Your task to perform on an android device: Show me popular games on the Play Store Image 0: 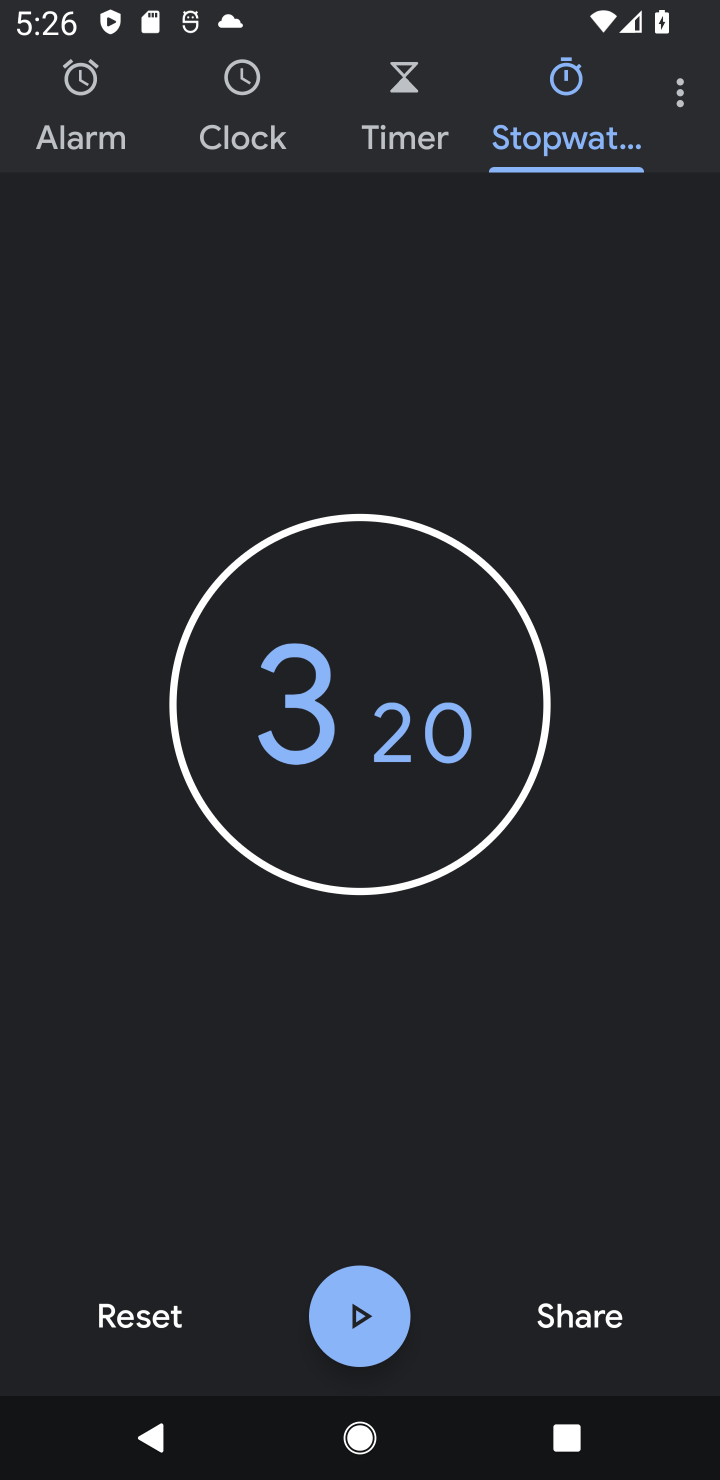
Step 0: press back button
Your task to perform on an android device: Show me popular games on the Play Store Image 1: 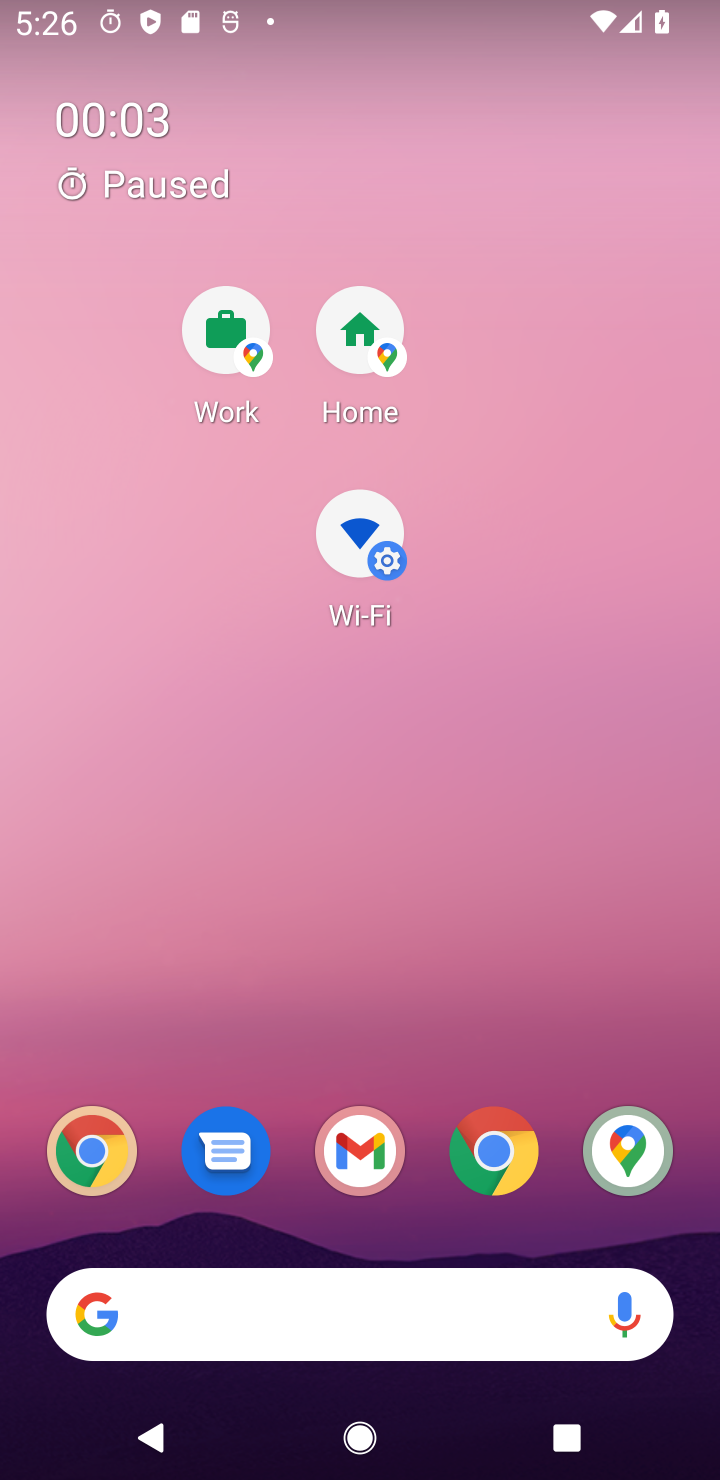
Step 1: drag from (406, 1150) to (361, 515)
Your task to perform on an android device: Show me popular games on the Play Store Image 2: 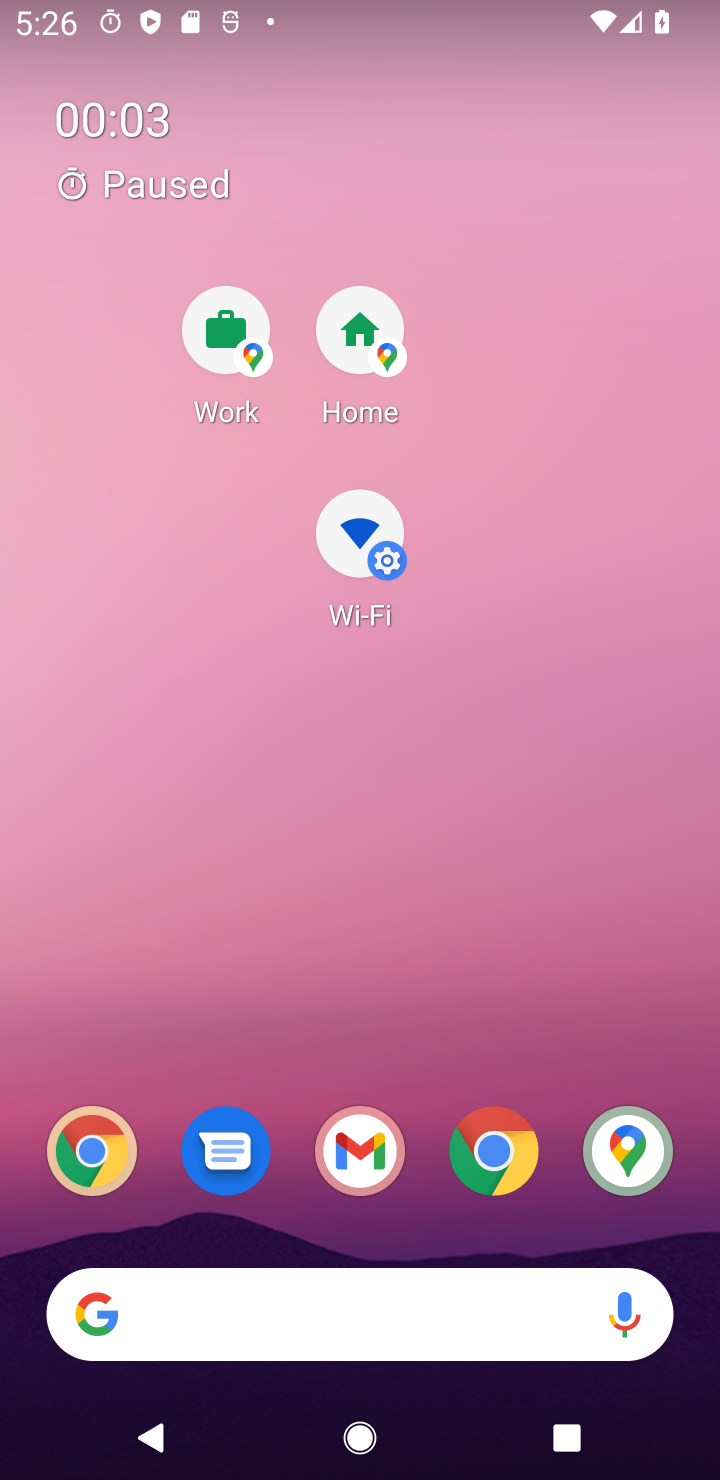
Step 2: click (319, 276)
Your task to perform on an android device: Show me popular games on the Play Store Image 3: 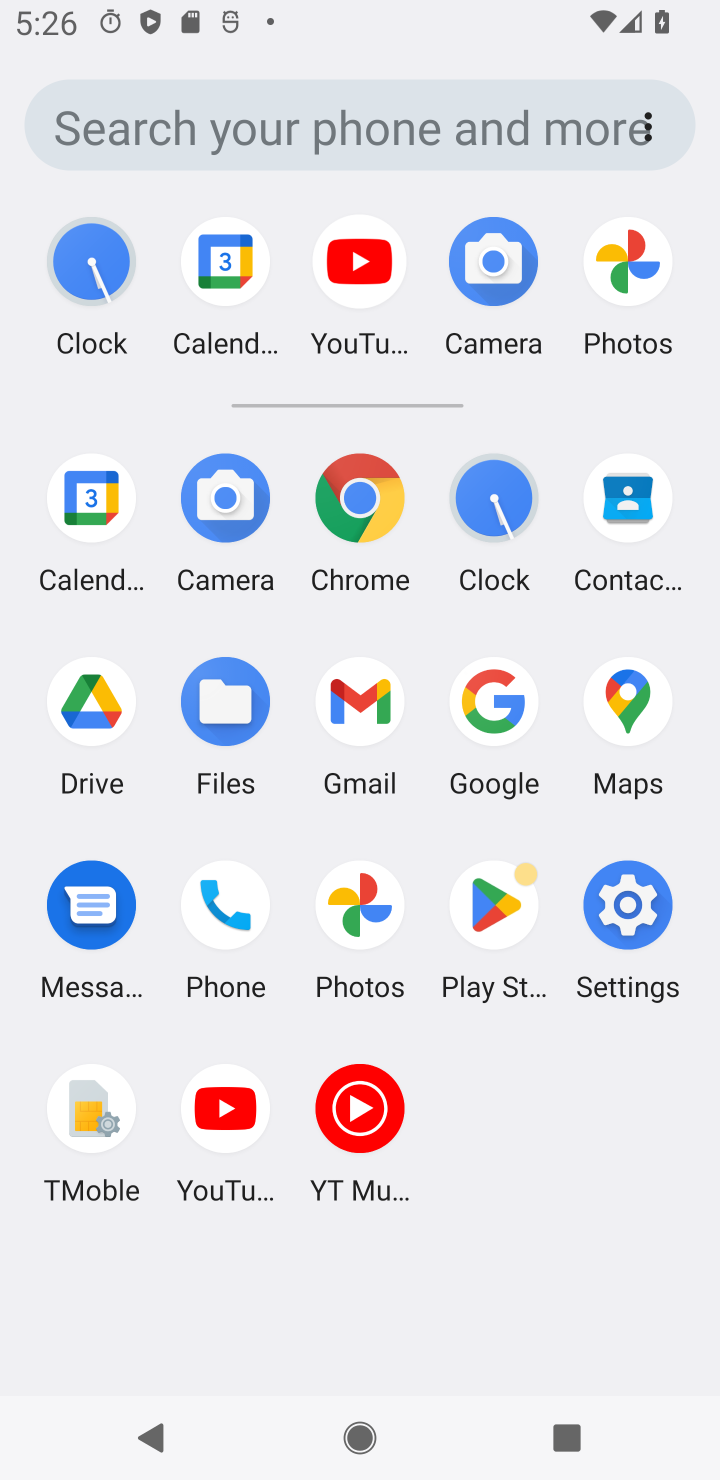
Step 3: drag from (394, 982) to (394, 442)
Your task to perform on an android device: Show me popular games on the Play Store Image 4: 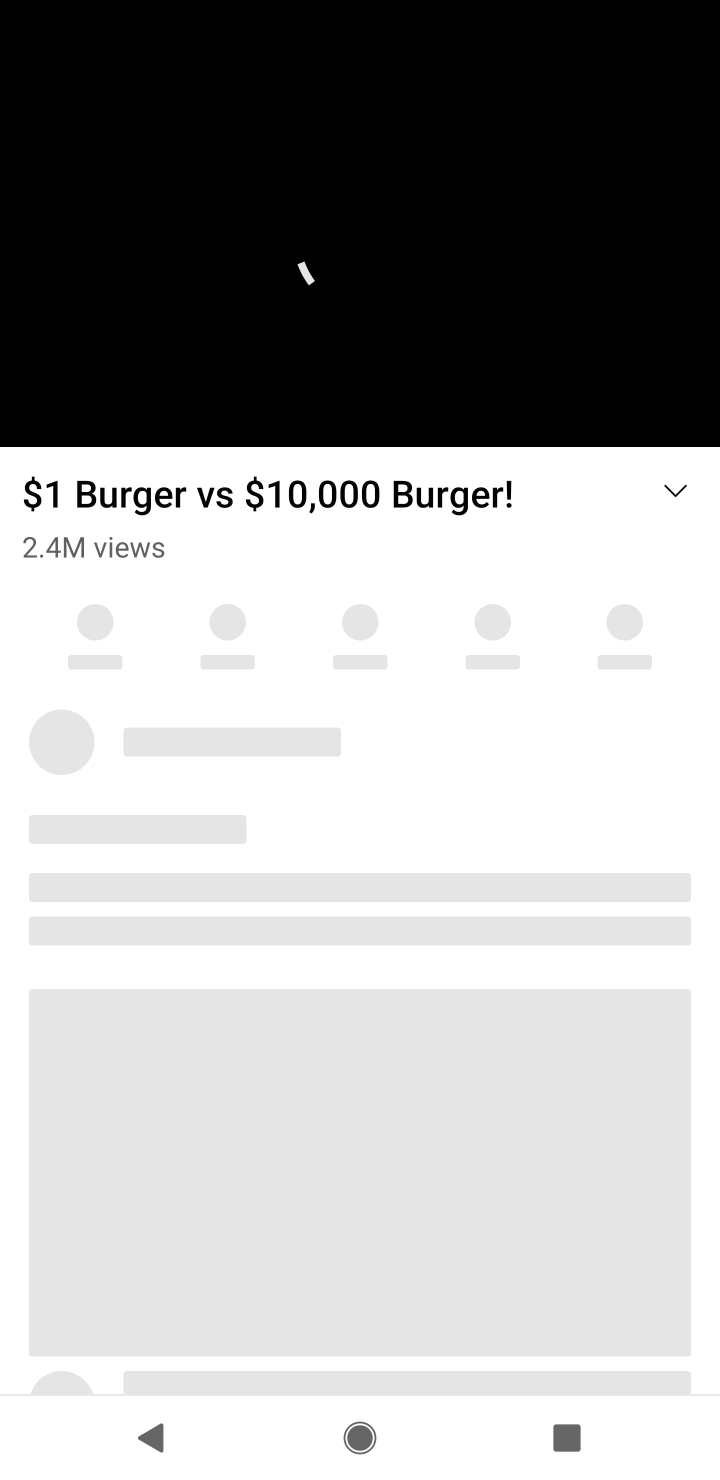
Step 4: press back button
Your task to perform on an android device: Show me popular games on the Play Store Image 5: 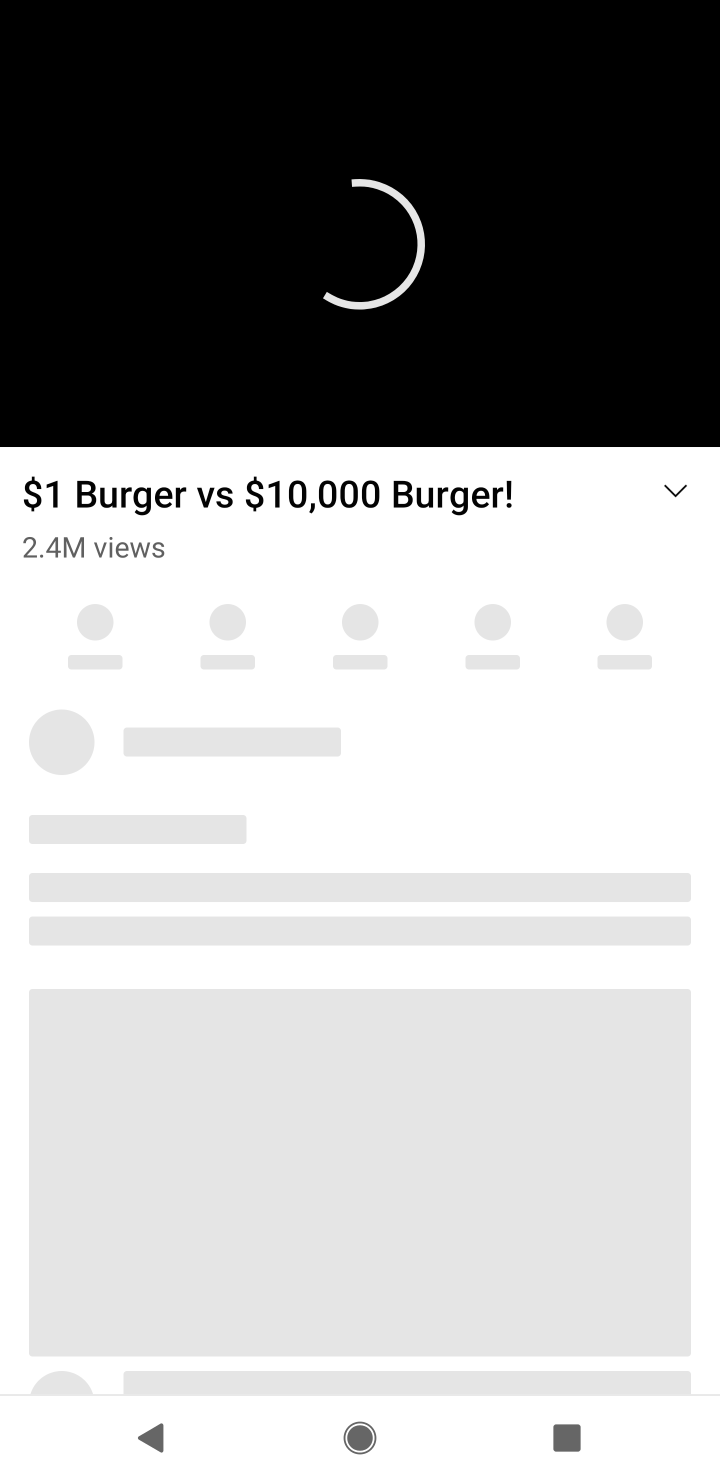
Step 5: press back button
Your task to perform on an android device: Show me popular games on the Play Store Image 6: 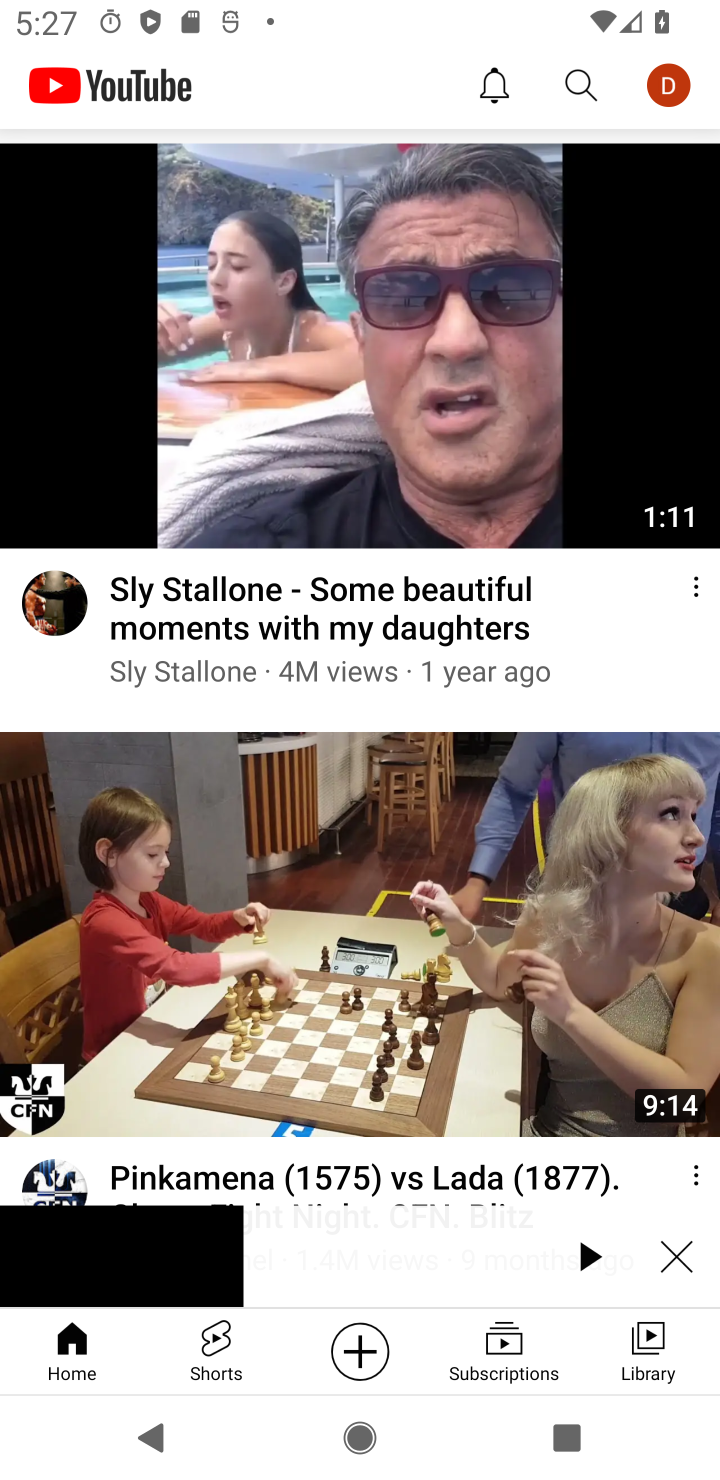
Step 6: press back button
Your task to perform on an android device: Show me popular games on the Play Store Image 7: 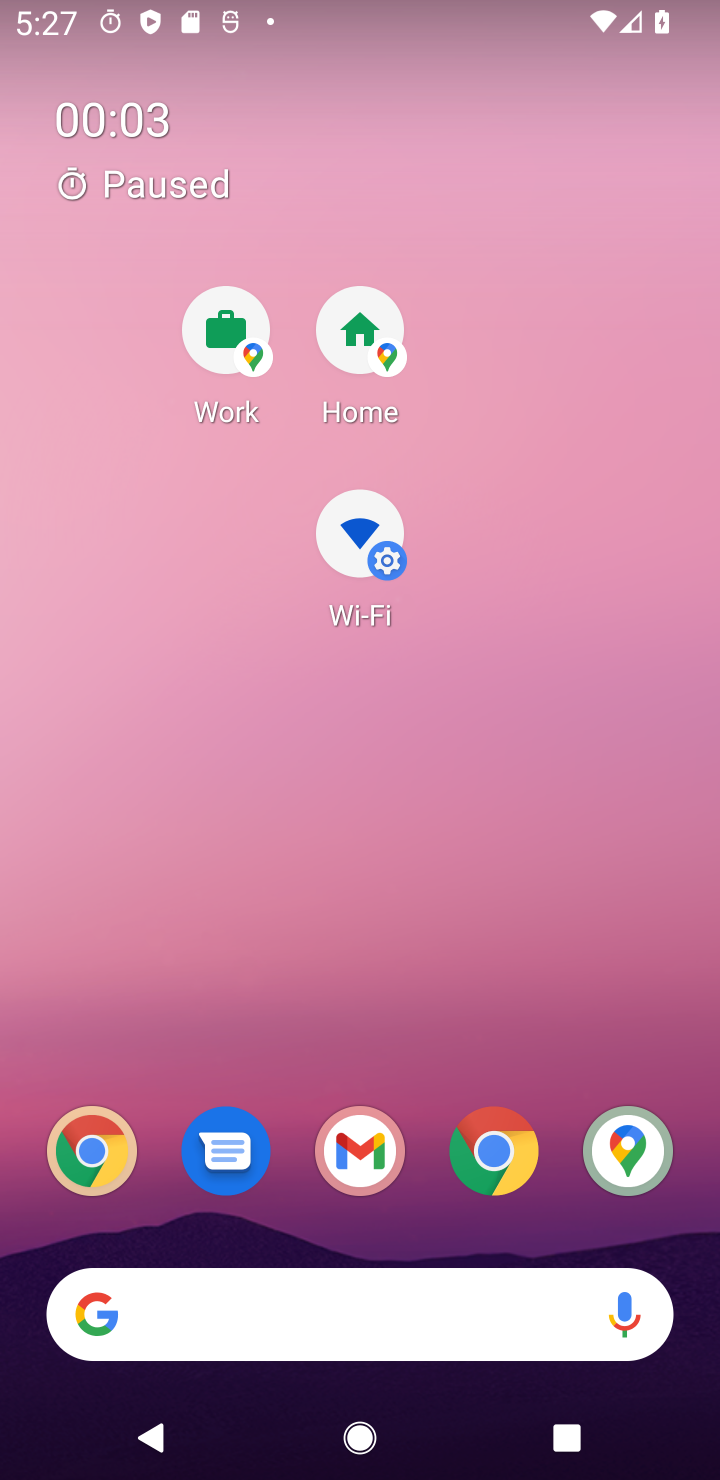
Step 7: drag from (484, 1269) to (179, 247)
Your task to perform on an android device: Show me popular games on the Play Store Image 8: 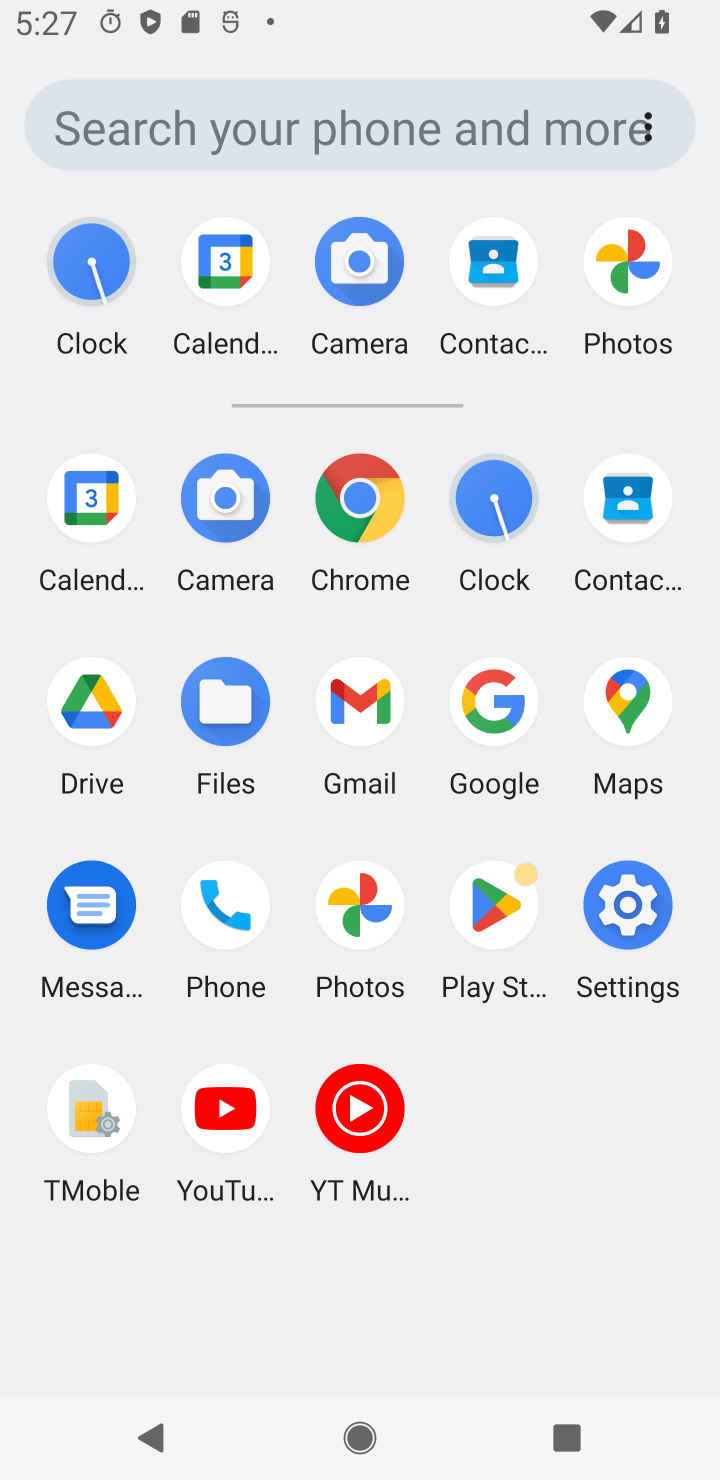
Step 8: click (483, 899)
Your task to perform on an android device: Show me popular games on the Play Store Image 9: 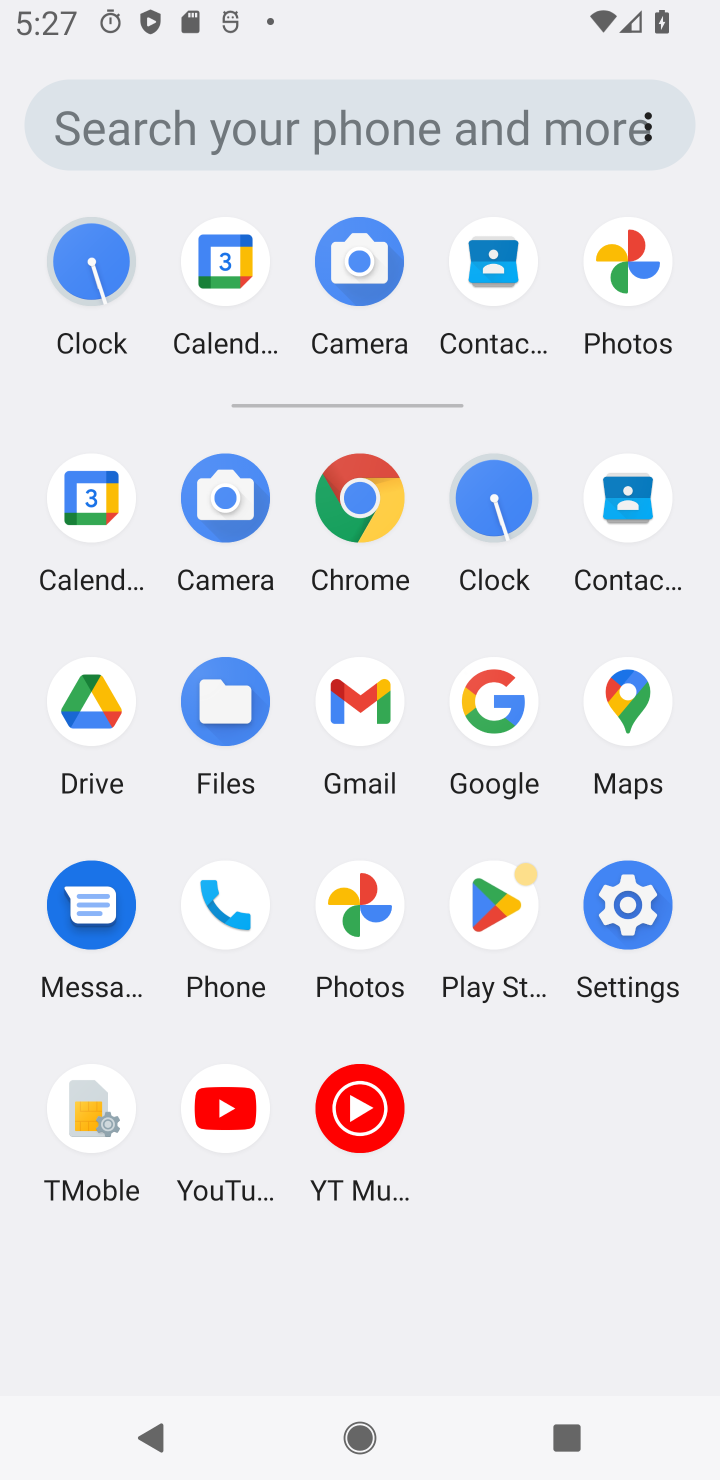
Step 9: click (483, 899)
Your task to perform on an android device: Show me popular games on the Play Store Image 10: 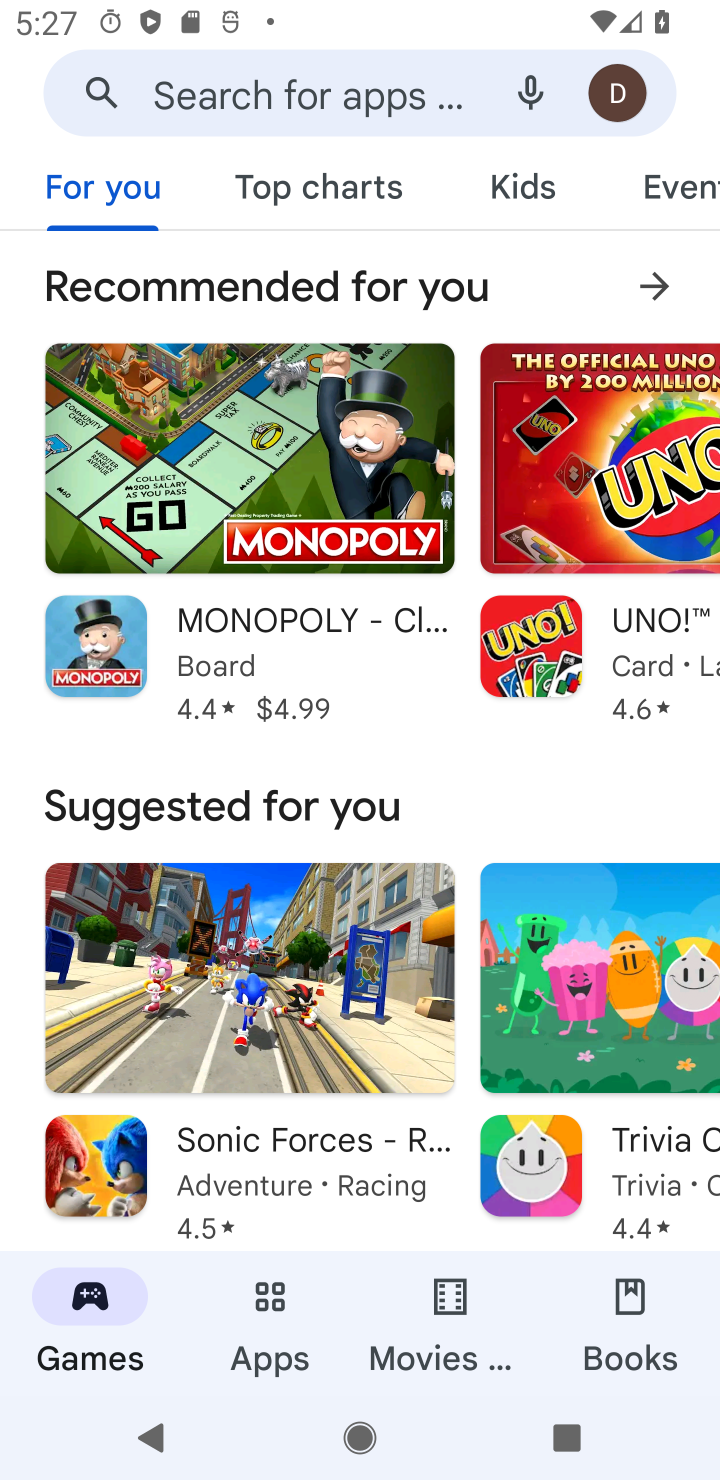
Step 10: click (180, 100)
Your task to perform on an android device: Show me popular games on the Play Store Image 11: 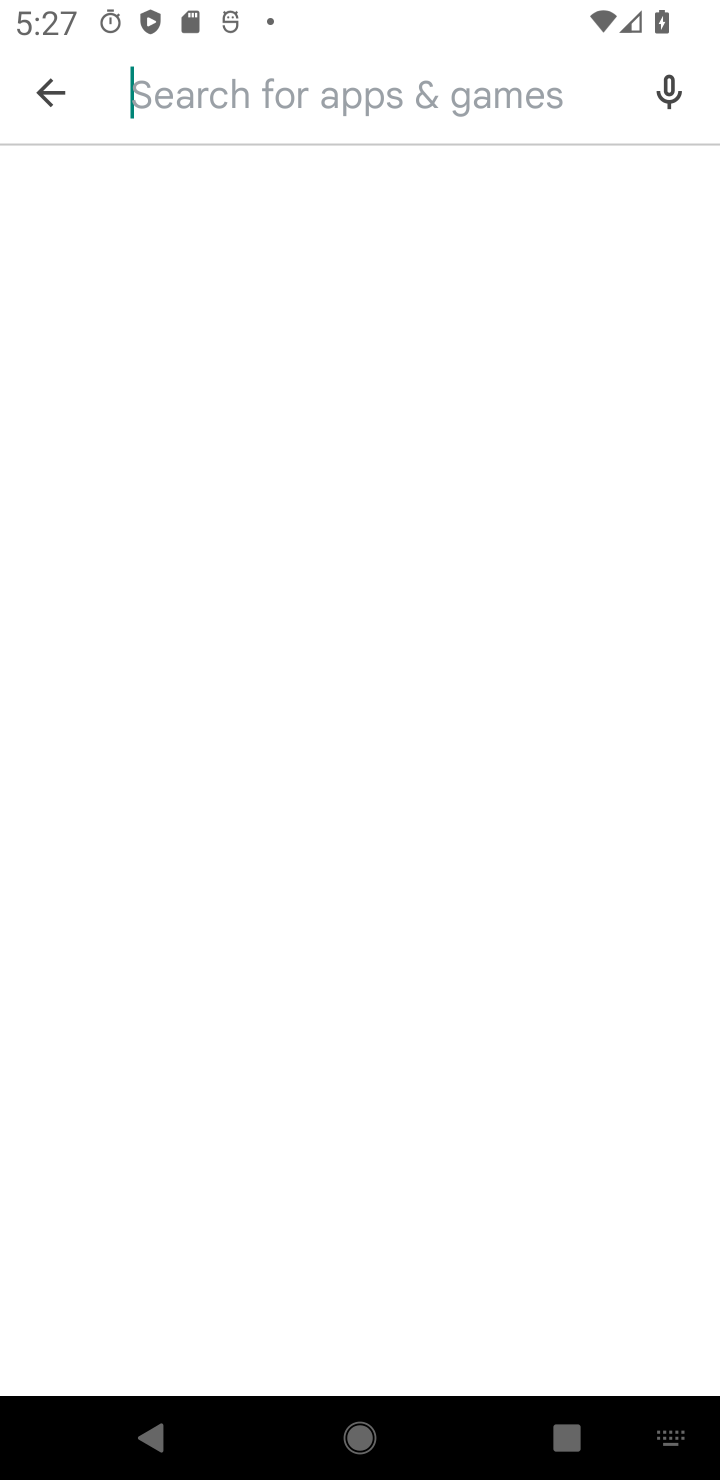
Step 11: type "popular games"
Your task to perform on an android device: Show me popular games on the Play Store Image 12: 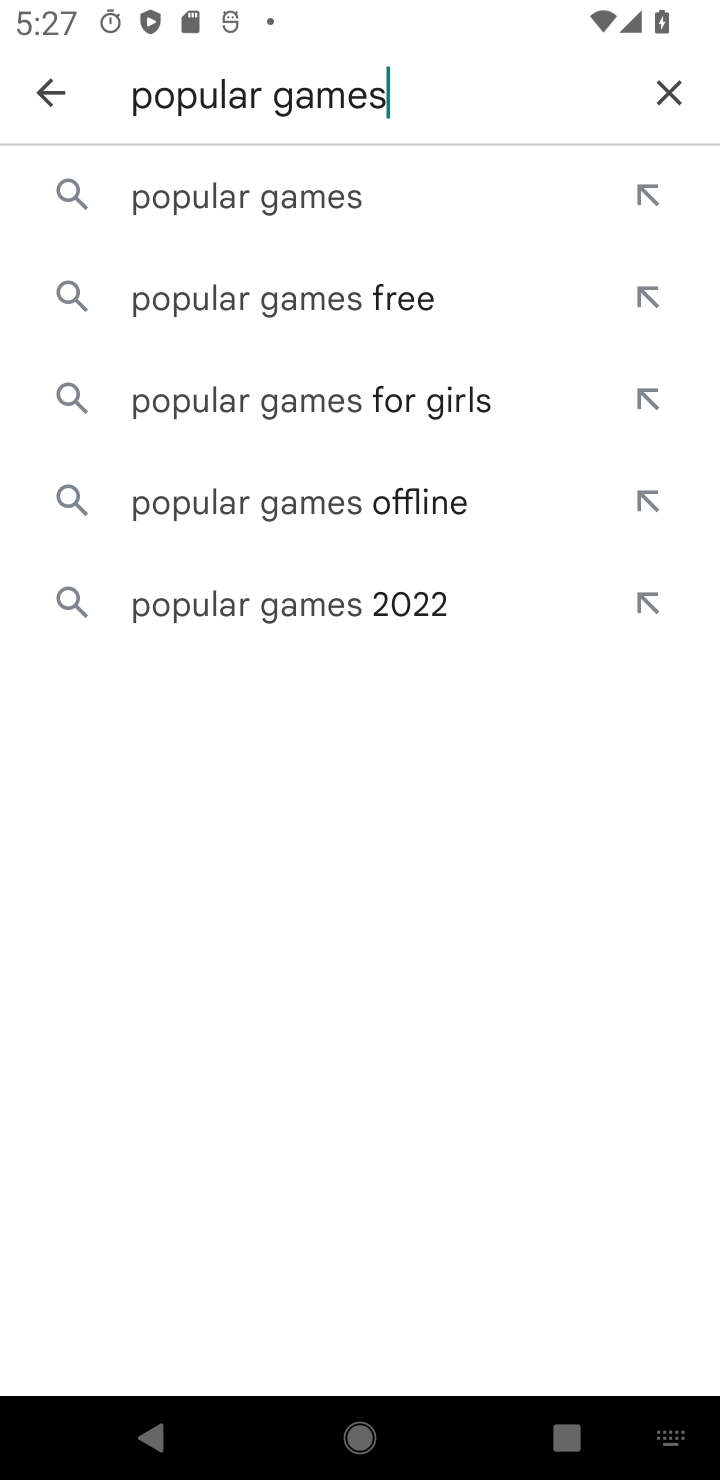
Step 12: click (143, 212)
Your task to perform on an android device: Show me popular games on the Play Store Image 13: 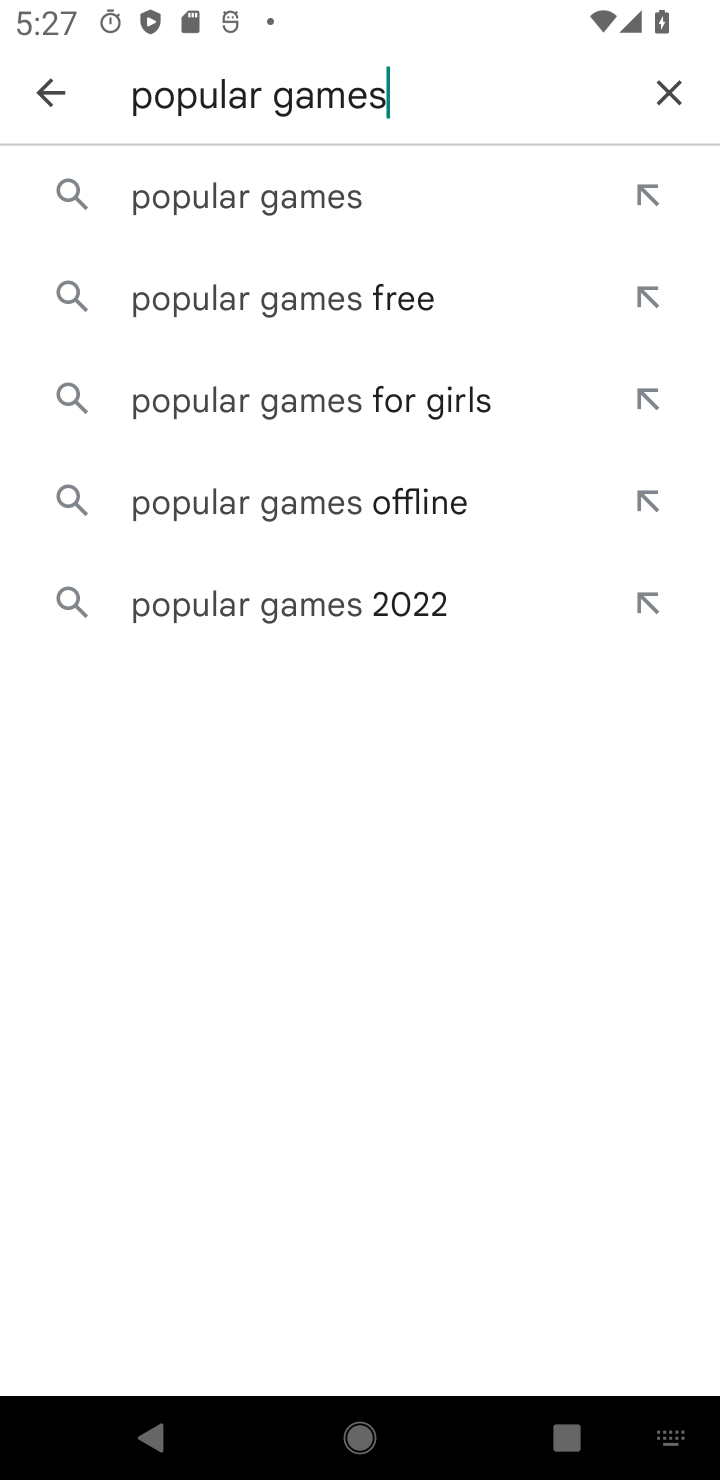
Step 13: click (143, 212)
Your task to perform on an android device: Show me popular games on the Play Store Image 14: 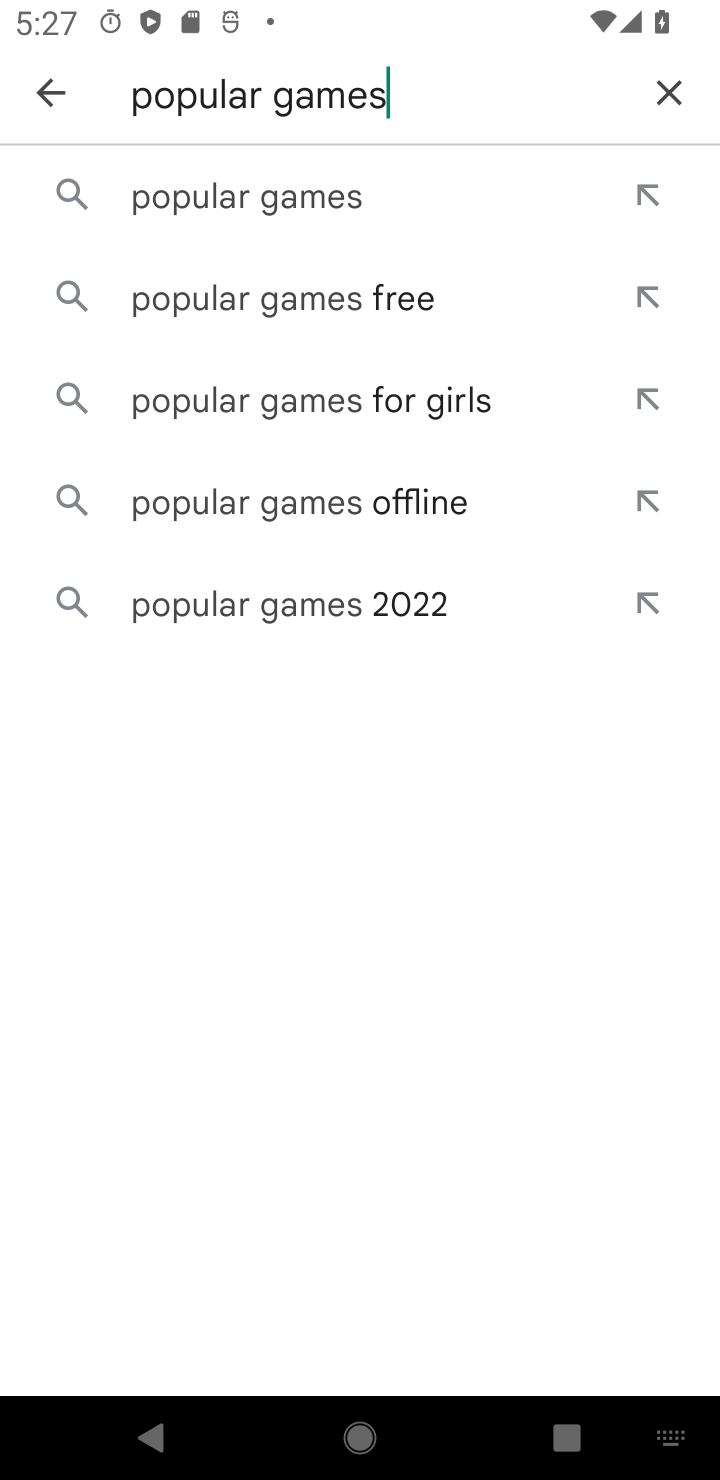
Step 14: click (143, 203)
Your task to perform on an android device: Show me popular games on the Play Store Image 15: 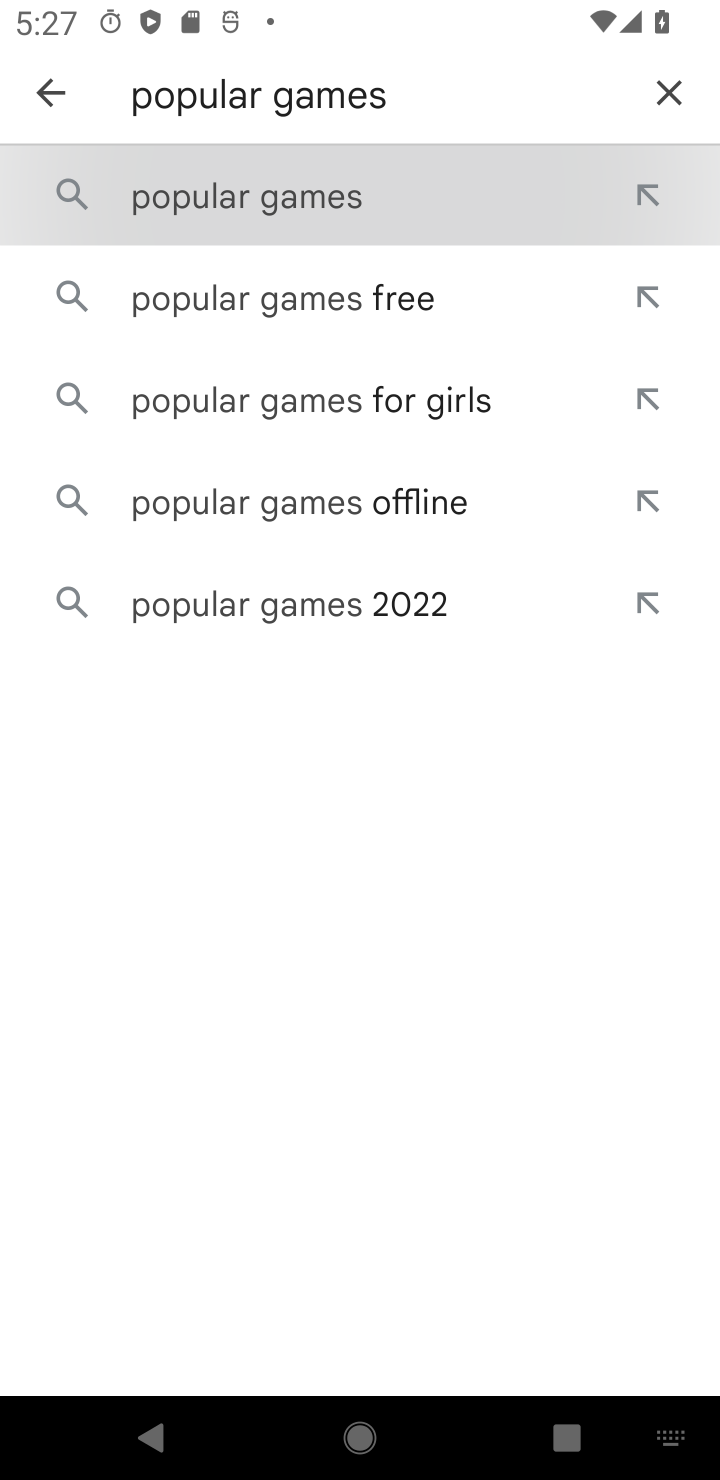
Step 15: click (143, 203)
Your task to perform on an android device: Show me popular games on the Play Store Image 16: 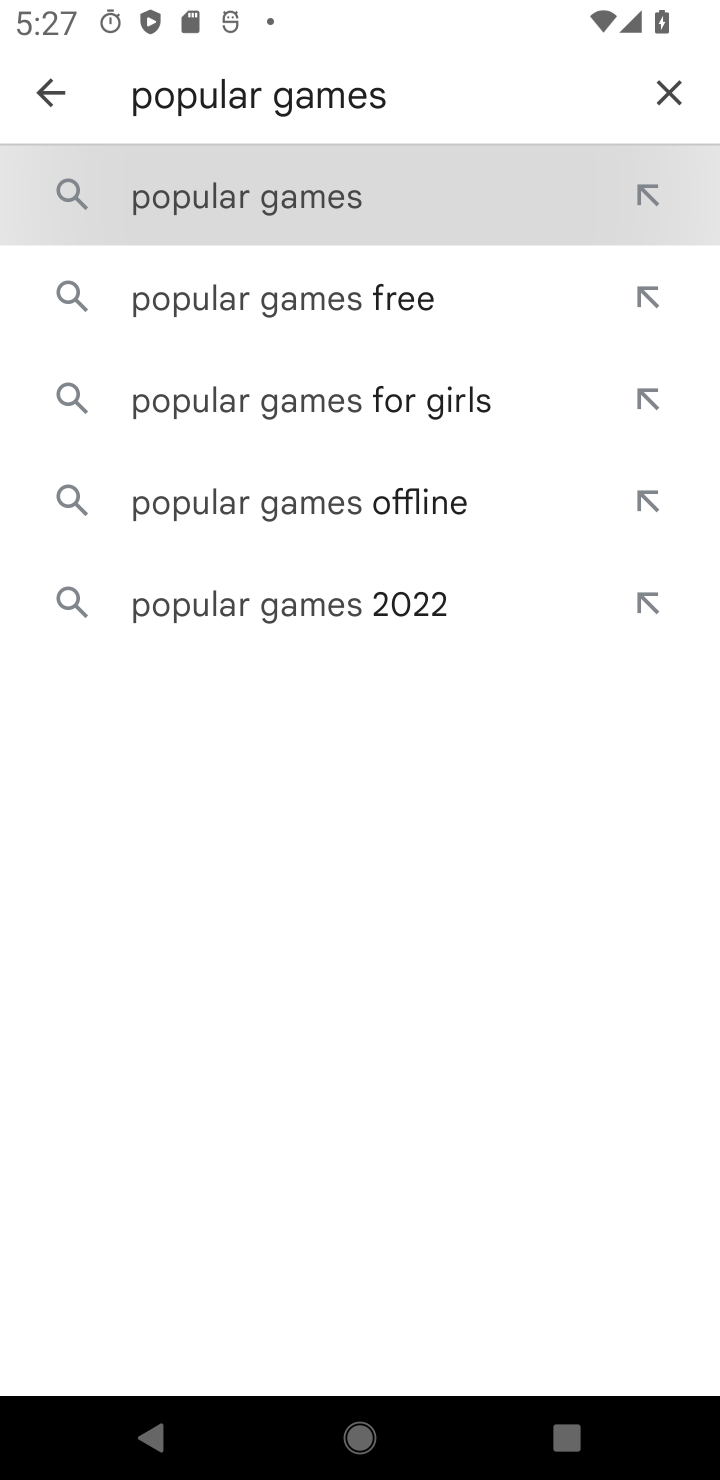
Step 16: click (150, 203)
Your task to perform on an android device: Show me popular games on the Play Store Image 17: 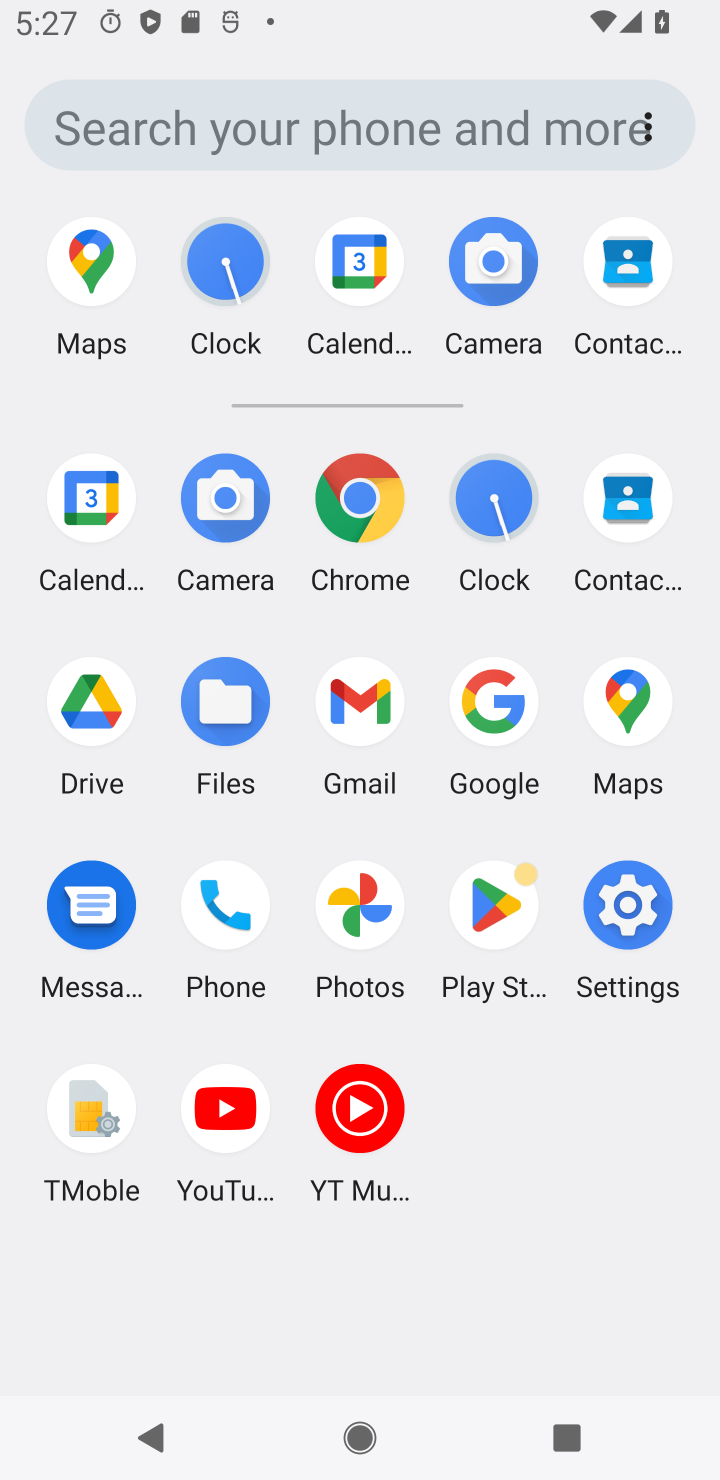
Step 17: task complete